Your task to perform on an android device: Search for logitech g910 on walmart, select the first entry, and add it to the cart. Image 0: 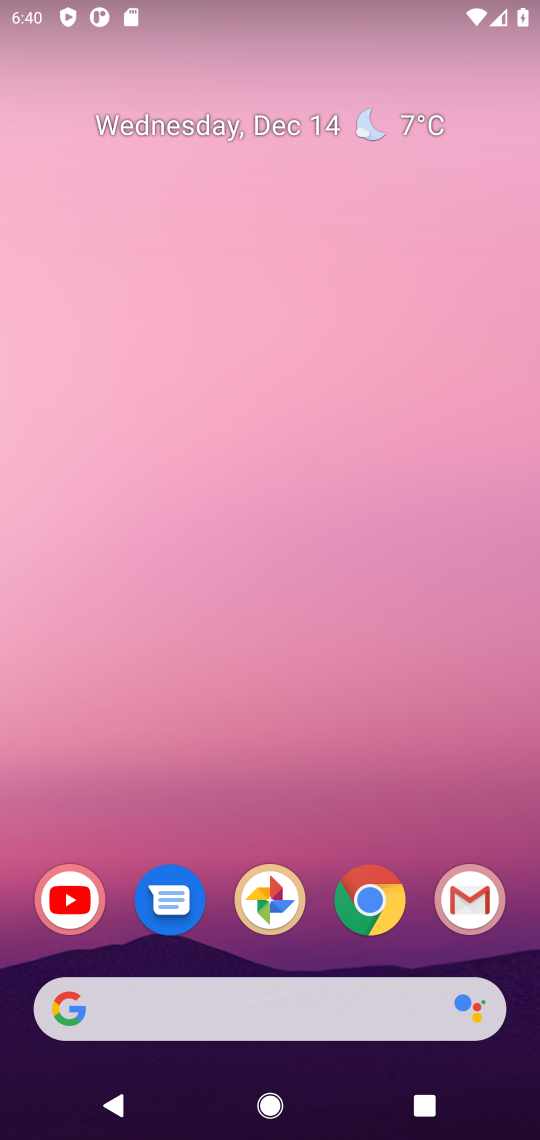
Step 0: click (213, 6)
Your task to perform on an android device: Search for logitech g910 on walmart, select the first entry, and add it to the cart. Image 1: 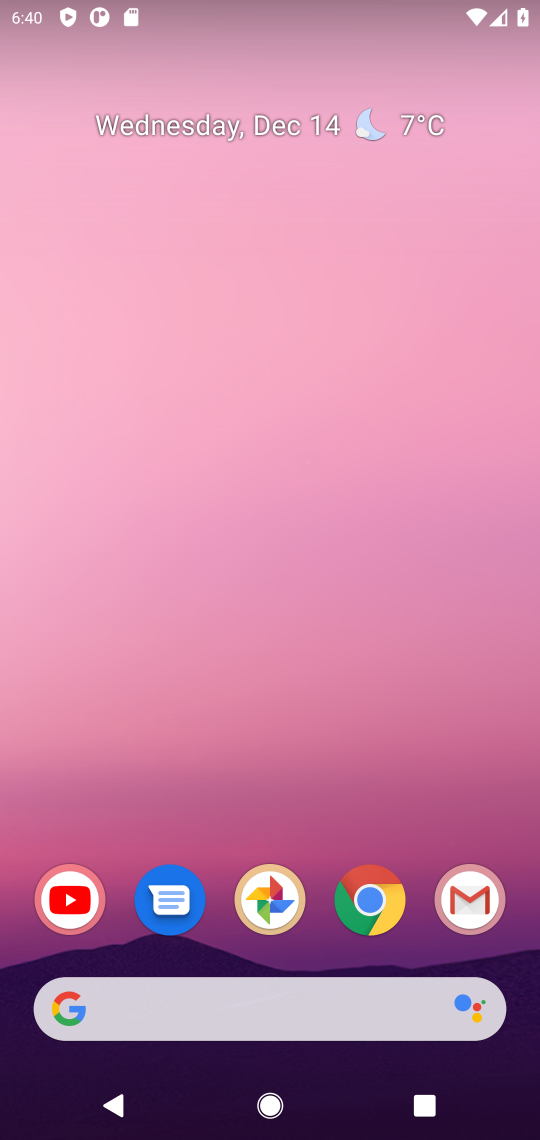
Step 1: drag from (304, 910) to (244, 226)
Your task to perform on an android device: Search for logitech g910 on walmart, select the first entry, and add it to the cart. Image 2: 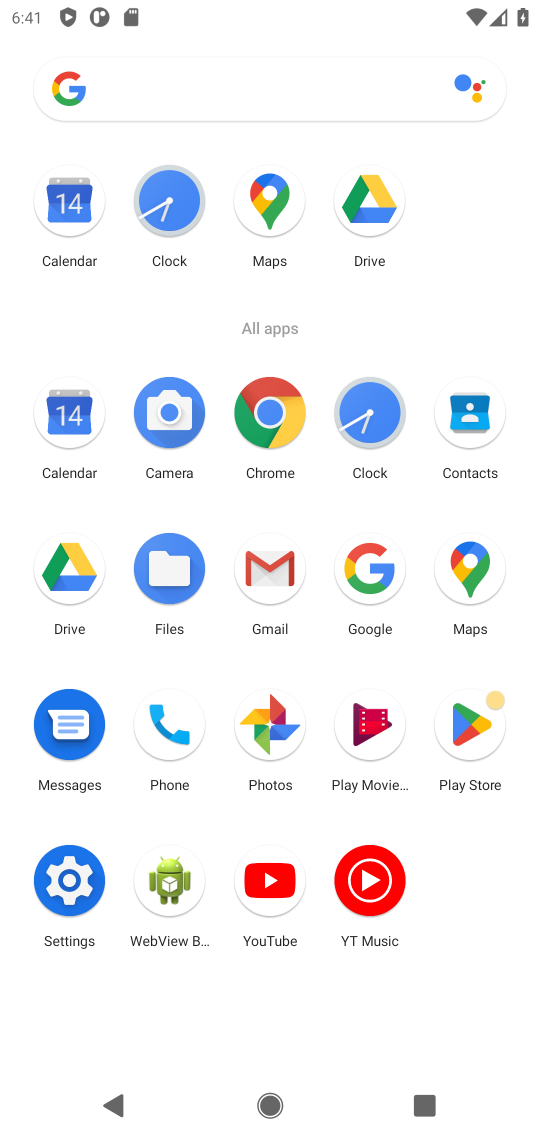
Step 2: click (368, 566)
Your task to perform on an android device: Search for logitech g910 on walmart, select the first entry, and add it to the cart. Image 3: 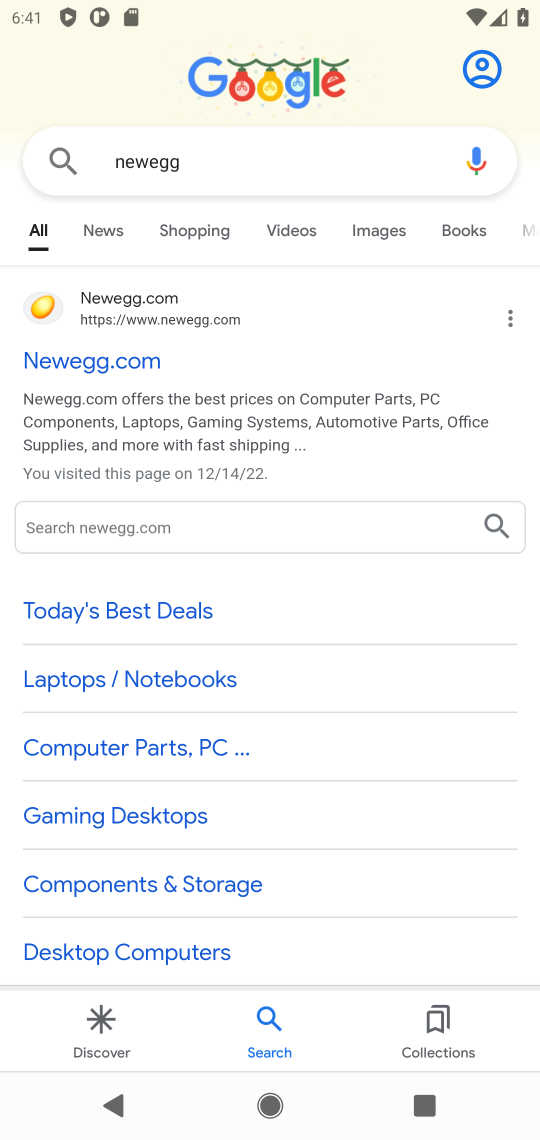
Step 3: click (379, 145)
Your task to perform on an android device: Search for logitech g910 on walmart, select the first entry, and add it to the cart. Image 4: 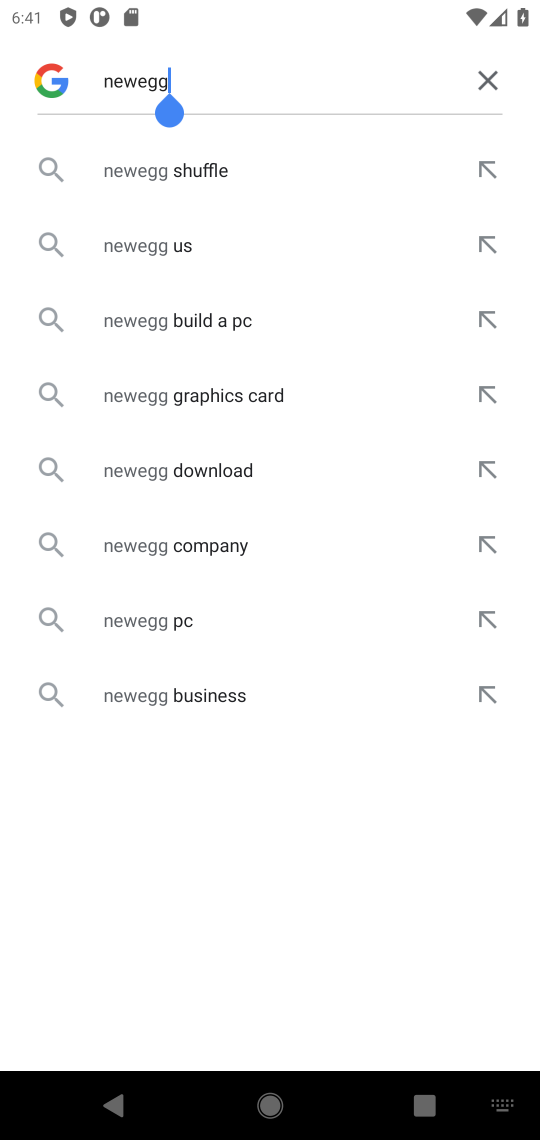
Step 4: click (478, 82)
Your task to perform on an android device: Search for logitech g910 on walmart, select the first entry, and add it to the cart. Image 5: 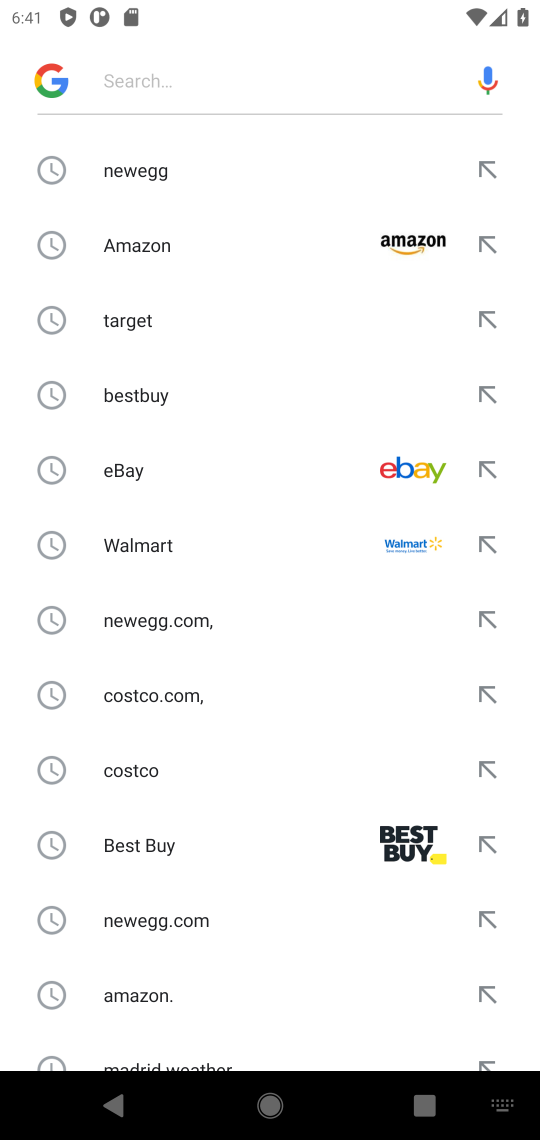
Step 5: type "walmart"
Your task to perform on an android device: Search for logitech g910 on walmart, select the first entry, and add it to the cart. Image 6: 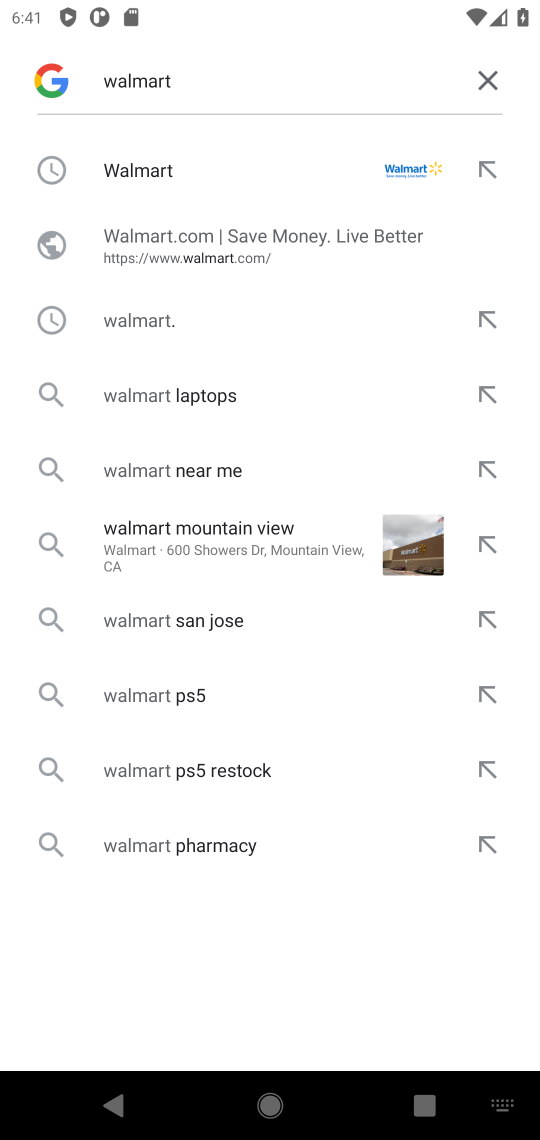
Step 6: click (165, 170)
Your task to perform on an android device: Search for logitech g910 on walmart, select the first entry, and add it to the cart. Image 7: 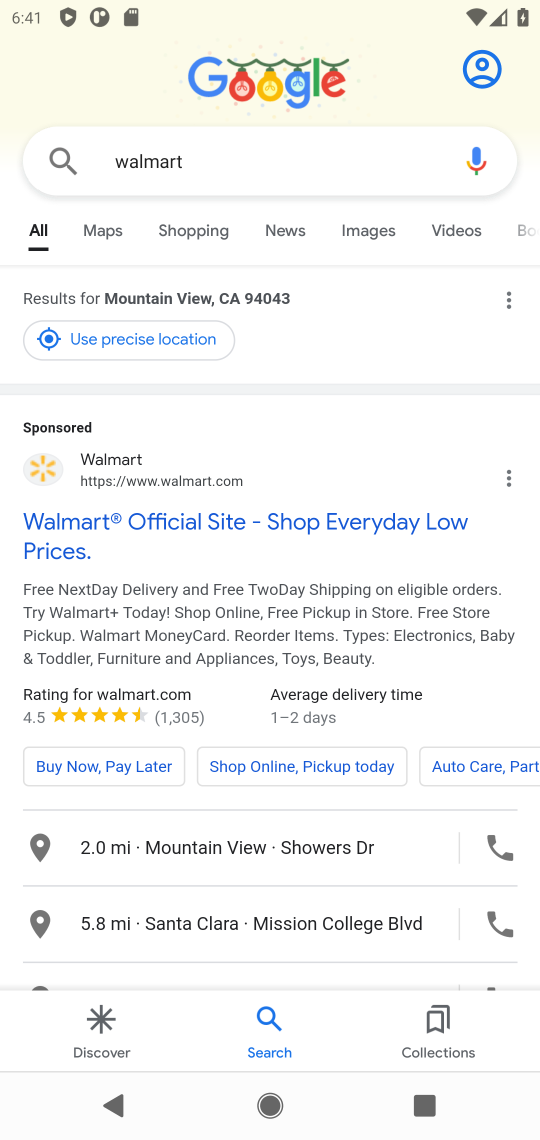
Step 7: click (129, 531)
Your task to perform on an android device: Search for logitech g910 on walmart, select the first entry, and add it to the cart. Image 8: 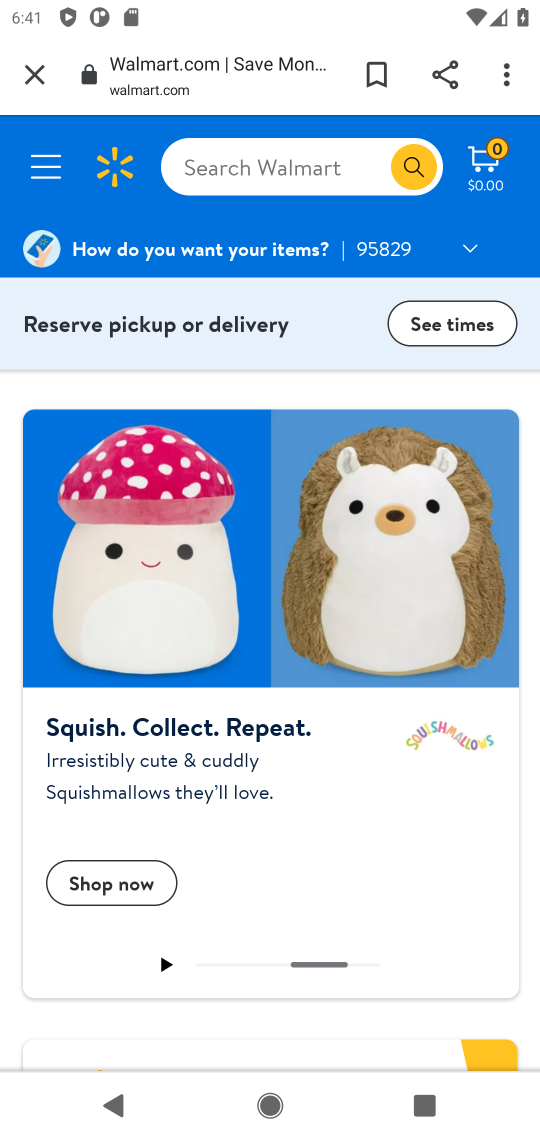
Step 8: click (290, 160)
Your task to perform on an android device: Search for logitech g910 on walmart, select the first entry, and add it to the cart. Image 9: 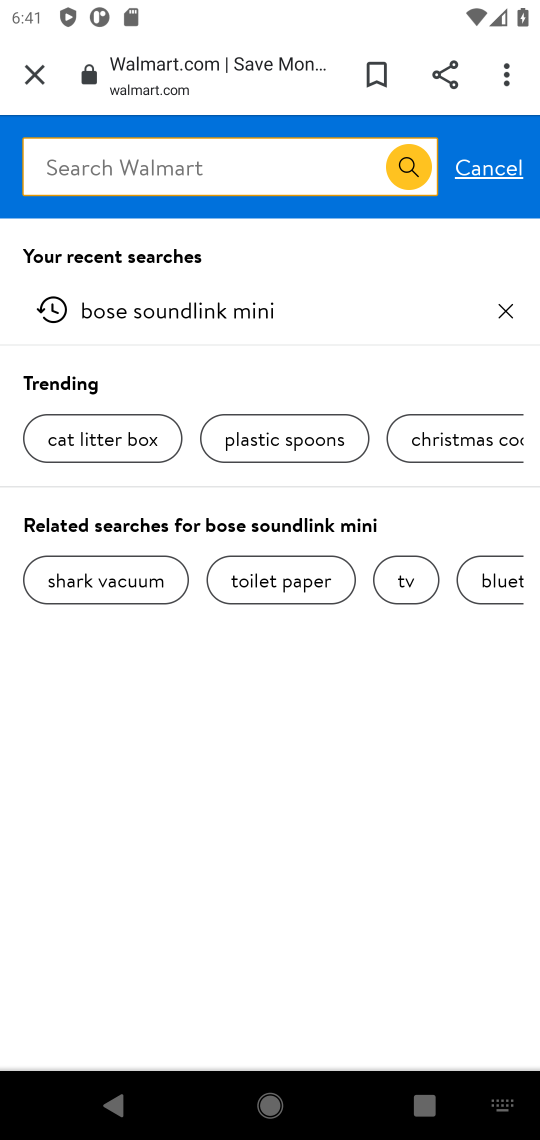
Step 9: type "logitech g910"
Your task to perform on an android device: Search for logitech g910 on walmart, select the first entry, and add it to the cart. Image 10: 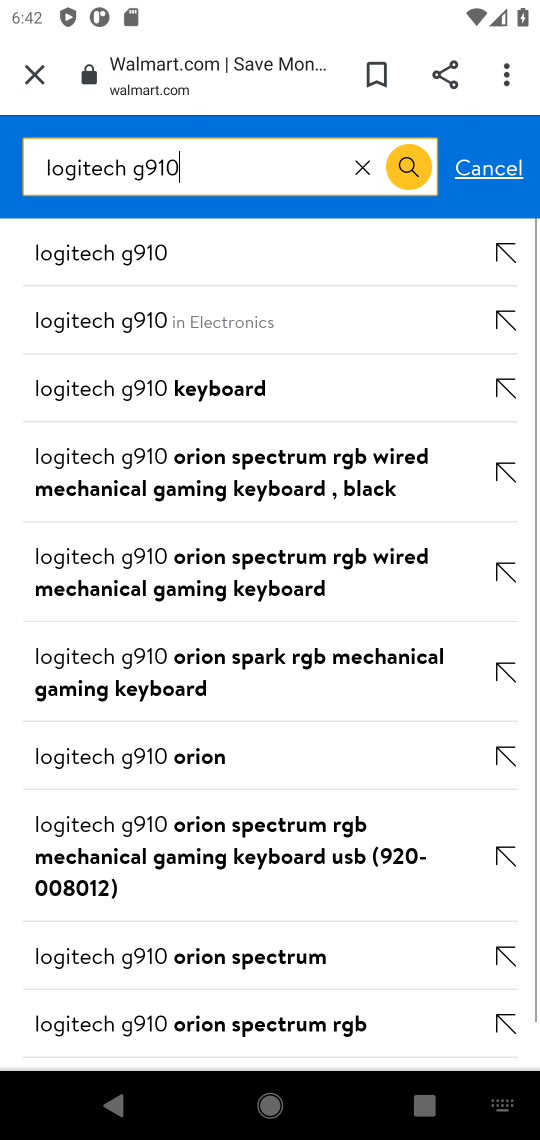
Step 10: click (134, 268)
Your task to perform on an android device: Search for logitech g910 on walmart, select the first entry, and add it to the cart. Image 11: 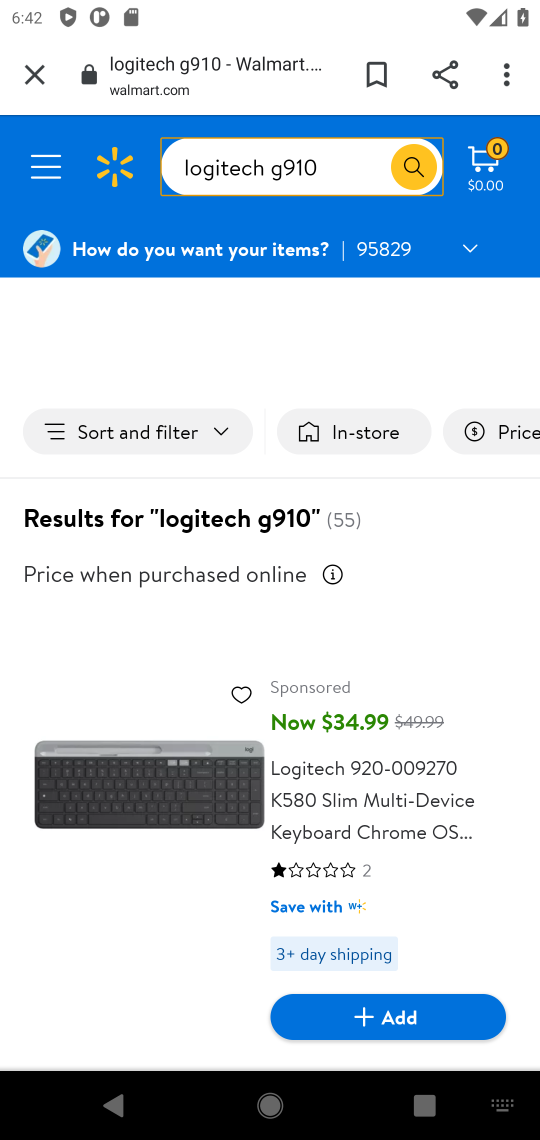
Step 11: click (392, 1002)
Your task to perform on an android device: Search for logitech g910 on walmart, select the first entry, and add it to the cart. Image 12: 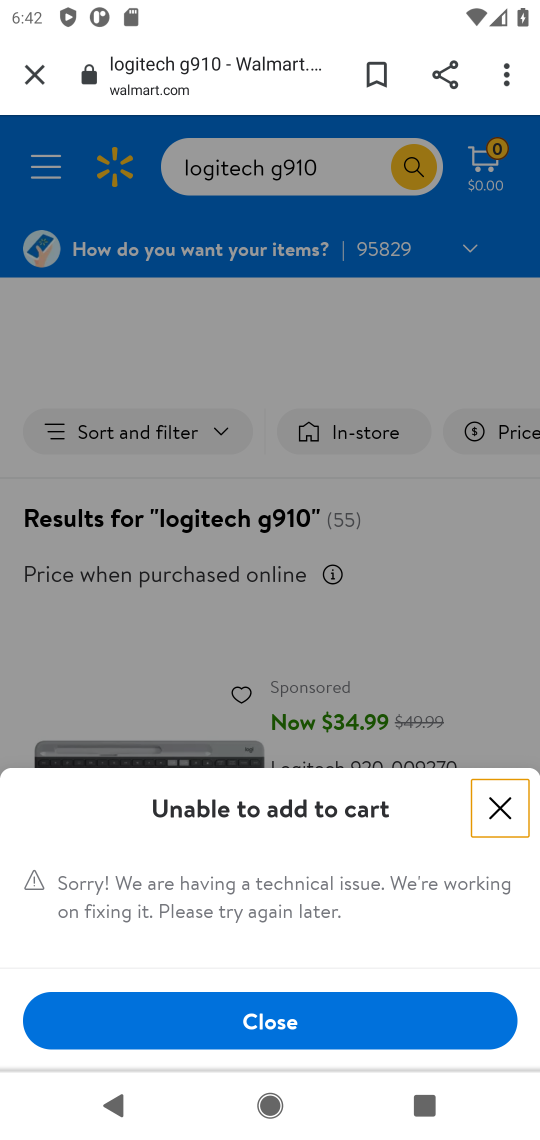
Step 12: task complete